Your task to perform on an android device: Open Reddit.com Image 0: 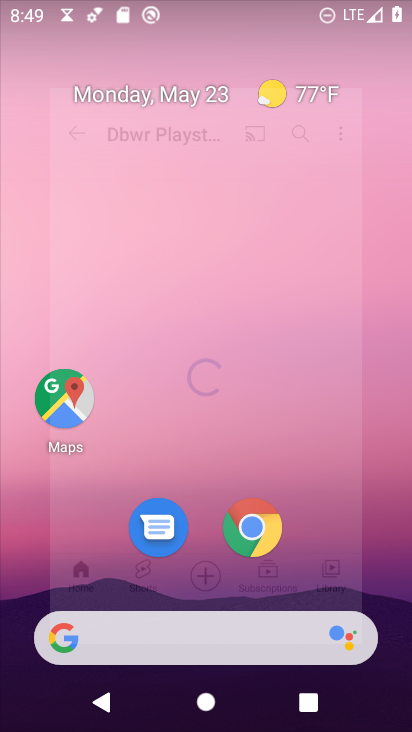
Step 0: press home button
Your task to perform on an android device: Open Reddit.com Image 1: 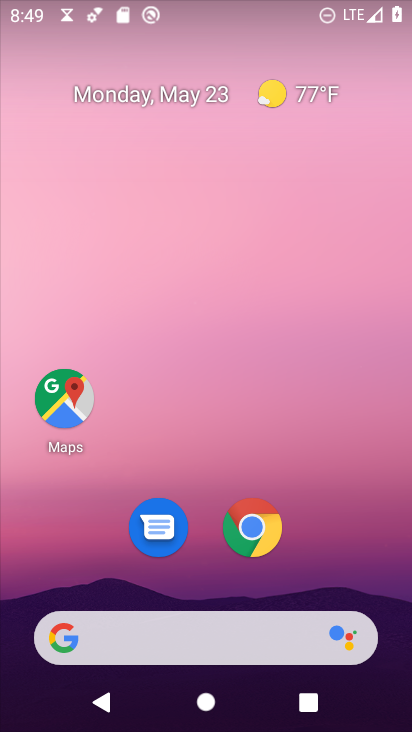
Step 1: drag from (278, 670) to (306, 158)
Your task to perform on an android device: Open Reddit.com Image 2: 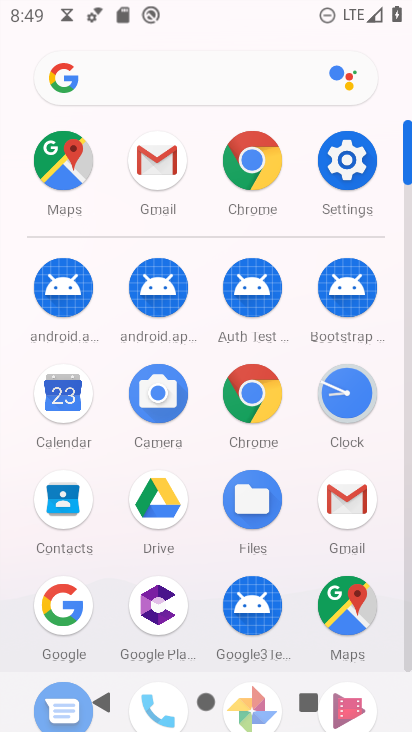
Step 2: click (256, 171)
Your task to perform on an android device: Open Reddit.com Image 3: 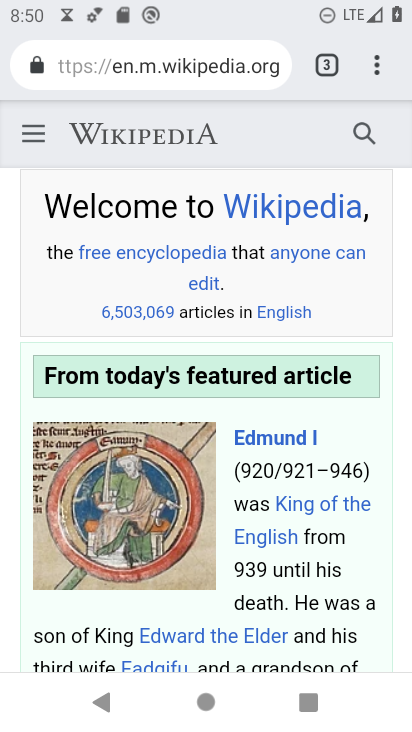
Step 3: click (191, 79)
Your task to perform on an android device: Open Reddit.com Image 4: 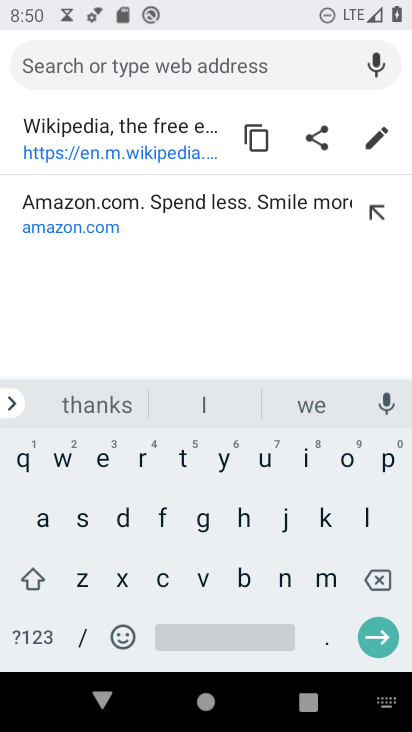
Step 4: click (131, 457)
Your task to perform on an android device: Open Reddit.com Image 5: 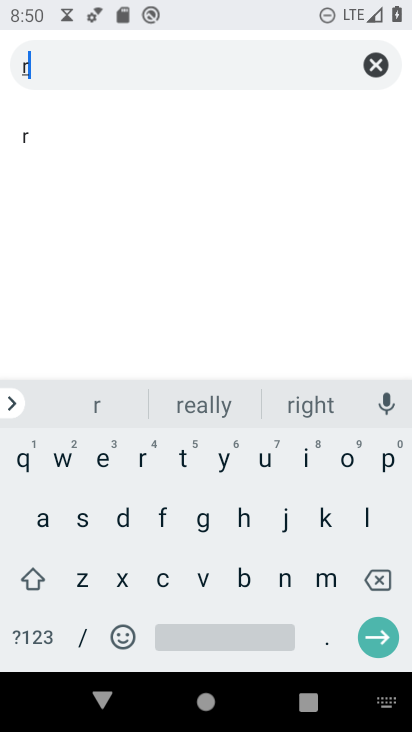
Step 5: click (103, 455)
Your task to perform on an android device: Open Reddit.com Image 6: 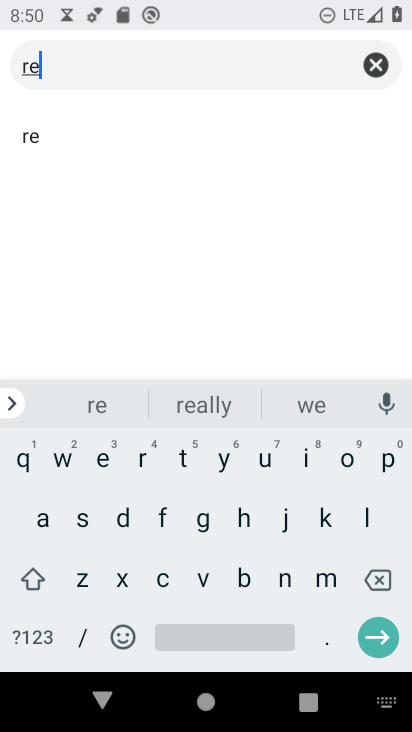
Step 6: click (119, 507)
Your task to perform on an android device: Open Reddit.com Image 7: 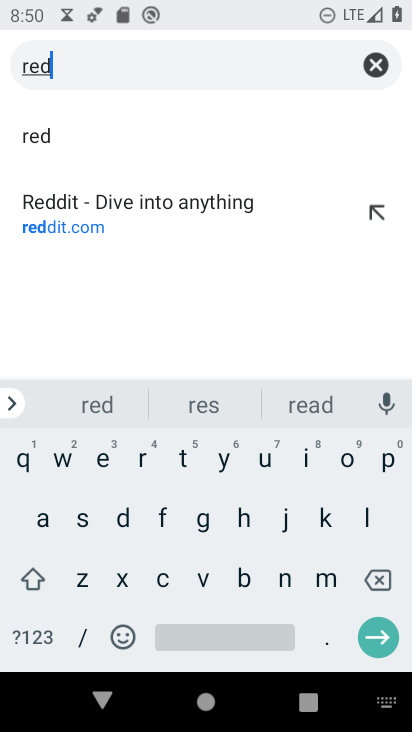
Step 7: click (131, 203)
Your task to perform on an android device: Open Reddit.com Image 8: 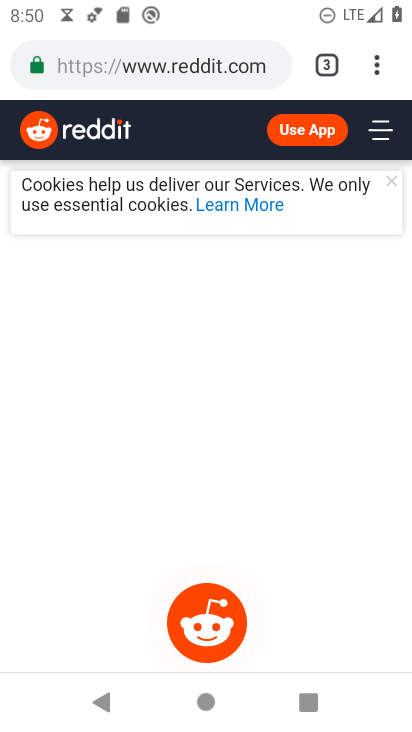
Step 8: task complete